Your task to perform on an android device: Turn on the flashlight Image 0: 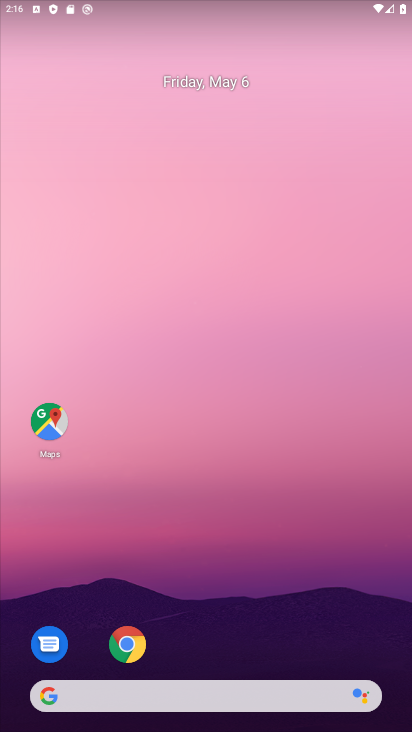
Step 0: click (136, 646)
Your task to perform on an android device: Turn on the flashlight Image 1: 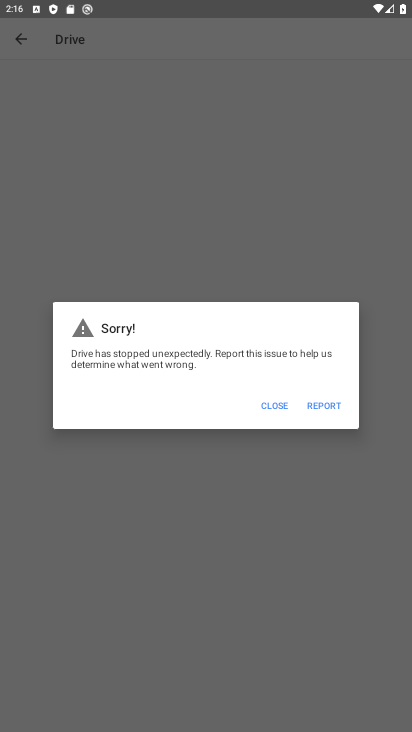
Step 1: task complete